Your task to perform on an android device: Open Chrome and go to settings Image 0: 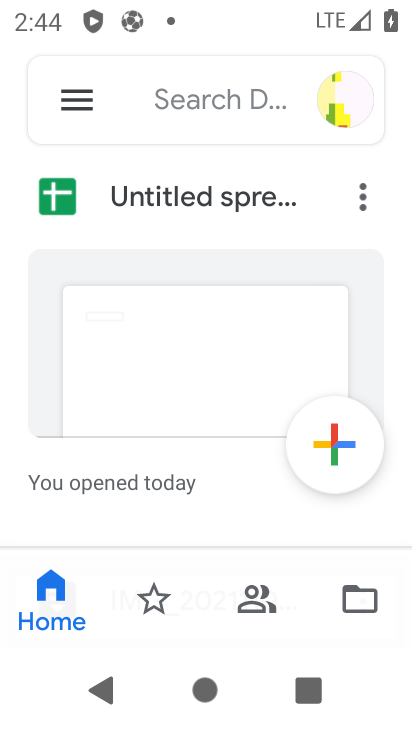
Step 0: press back button
Your task to perform on an android device: Open Chrome and go to settings Image 1: 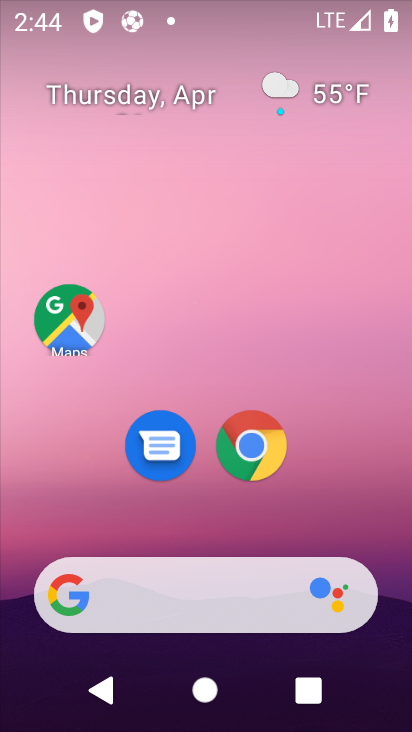
Step 1: click (252, 446)
Your task to perform on an android device: Open Chrome and go to settings Image 2: 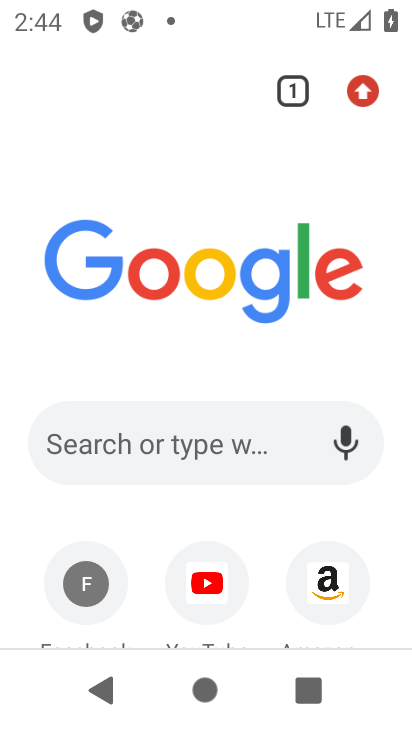
Step 2: click (368, 92)
Your task to perform on an android device: Open Chrome and go to settings Image 3: 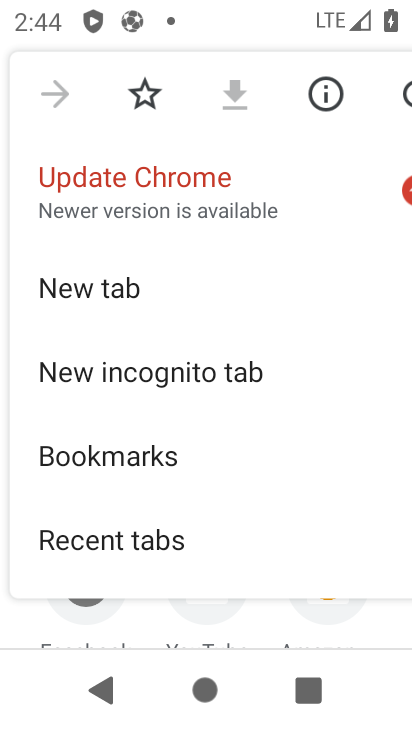
Step 3: drag from (218, 487) to (222, 301)
Your task to perform on an android device: Open Chrome and go to settings Image 4: 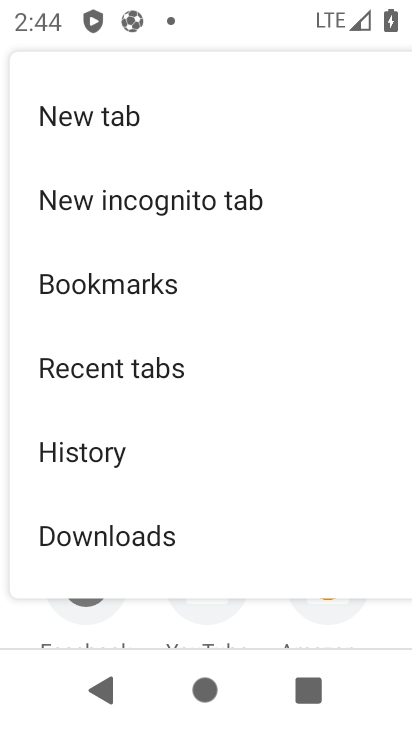
Step 4: drag from (186, 434) to (205, 324)
Your task to perform on an android device: Open Chrome and go to settings Image 5: 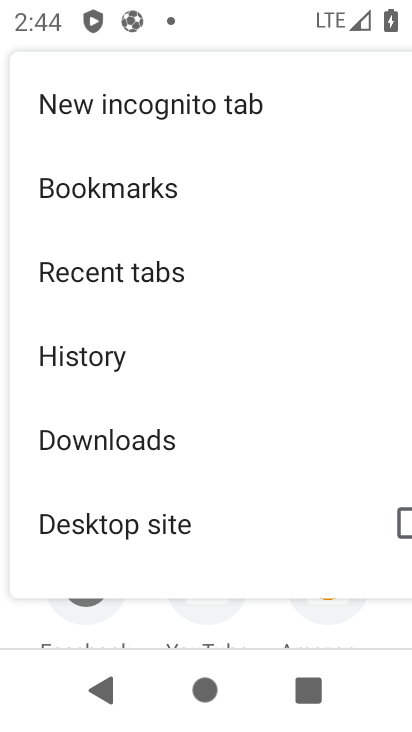
Step 5: drag from (172, 473) to (202, 343)
Your task to perform on an android device: Open Chrome and go to settings Image 6: 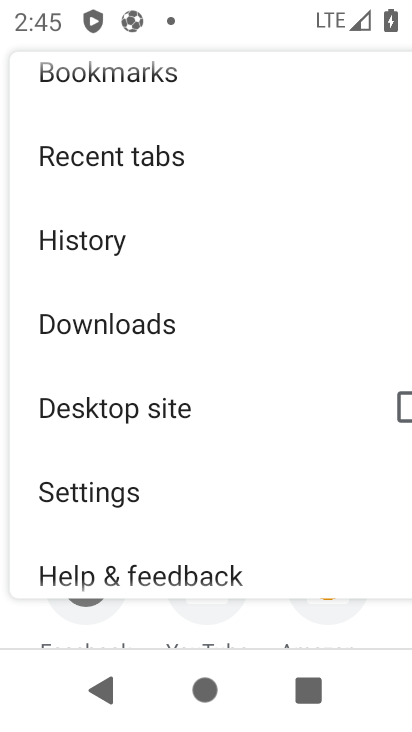
Step 6: click (91, 495)
Your task to perform on an android device: Open Chrome and go to settings Image 7: 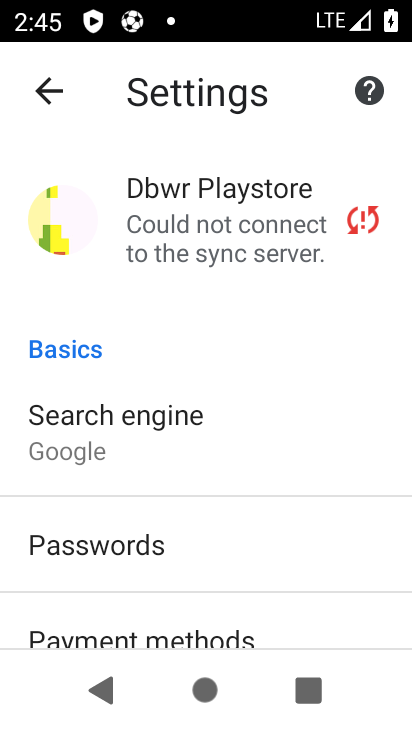
Step 7: task complete